Your task to perform on an android device: Go to sound settings Image 0: 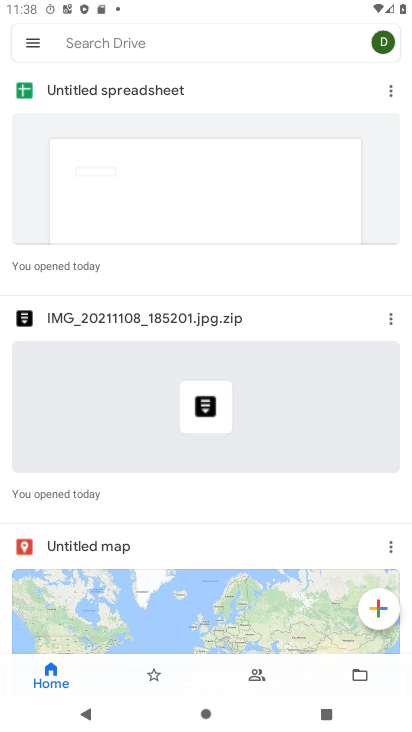
Step 0: press home button
Your task to perform on an android device: Go to sound settings Image 1: 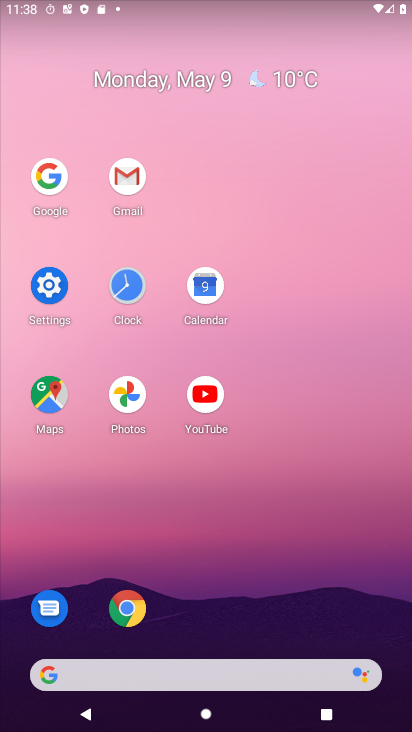
Step 1: click (44, 301)
Your task to perform on an android device: Go to sound settings Image 2: 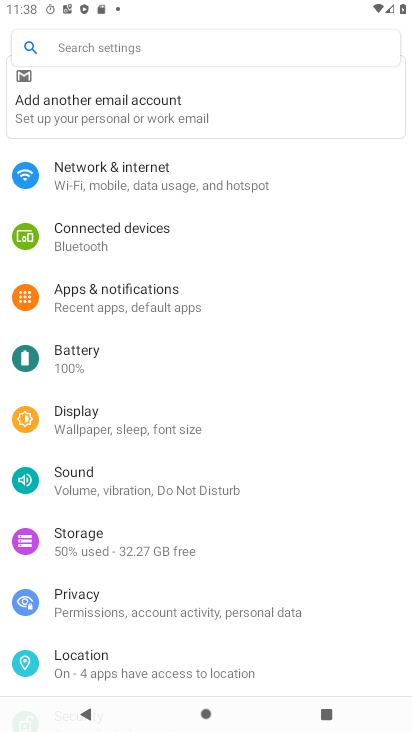
Step 2: click (169, 471)
Your task to perform on an android device: Go to sound settings Image 3: 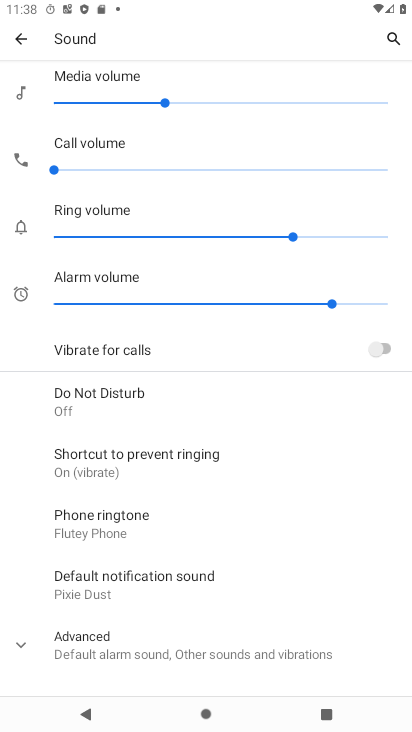
Step 3: task complete